Your task to perform on an android device: Open calendar and show me the first week of next month Image 0: 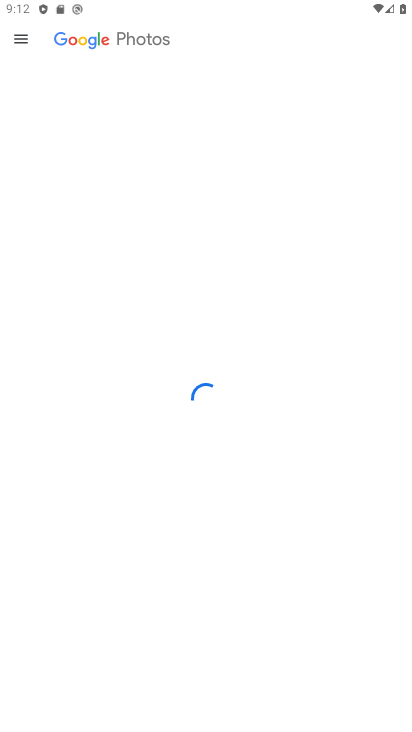
Step 0: press home button
Your task to perform on an android device: Open calendar and show me the first week of next month Image 1: 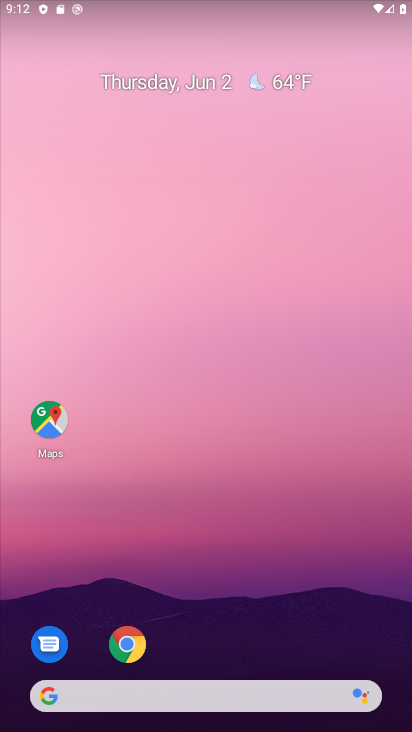
Step 1: drag from (322, 614) to (367, 10)
Your task to perform on an android device: Open calendar and show me the first week of next month Image 2: 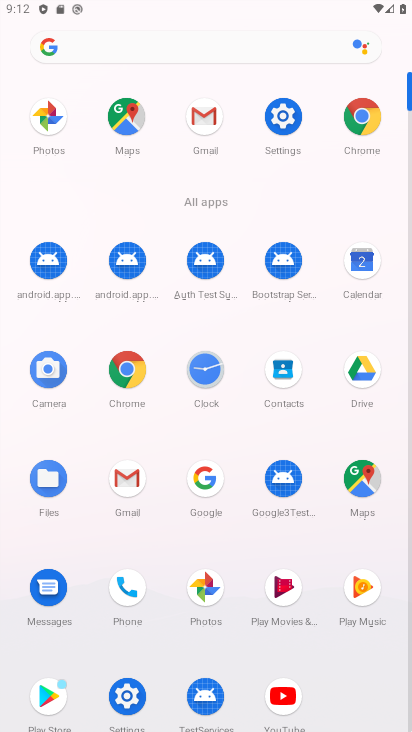
Step 2: click (364, 267)
Your task to perform on an android device: Open calendar and show me the first week of next month Image 3: 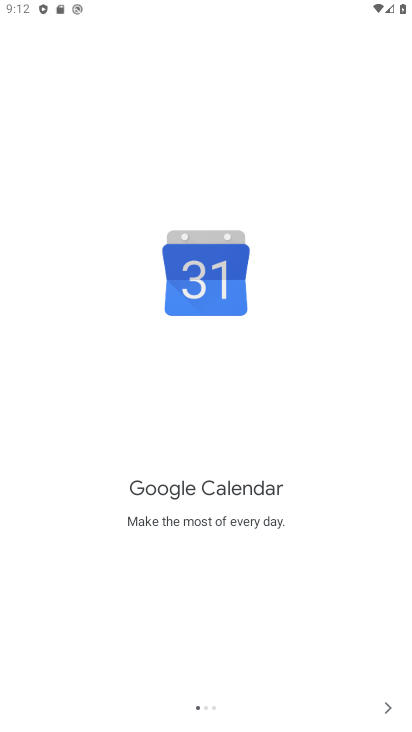
Step 3: click (391, 711)
Your task to perform on an android device: Open calendar and show me the first week of next month Image 4: 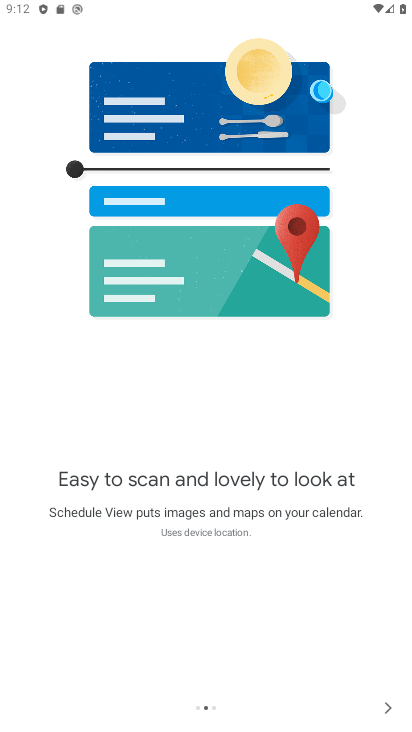
Step 4: click (391, 711)
Your task to perform on an android device: Open calendar and show me the first week of next month Image 5: 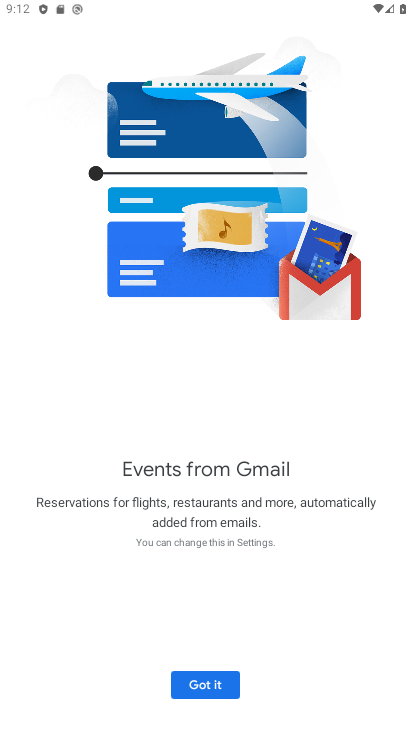
Step 5: click (208, 698)
Your task to perform on an android device: Open calendar and show me the first week of next month Image 6: 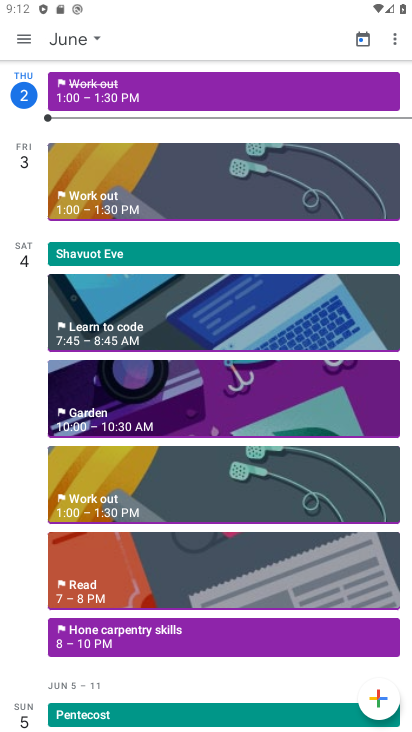
Step 6: click (105, 41)
Your task to perform on an android device: Open calendar and show me the first week of next month Image 7: 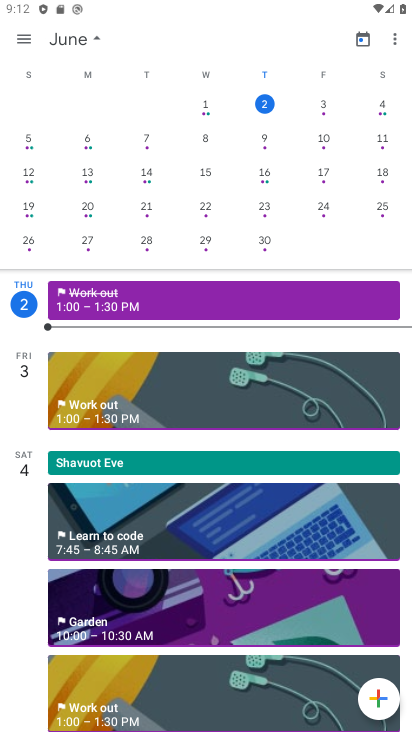
Step 7: task complete